Your task to perform on an android device: change the upload size in google photos Image 0: 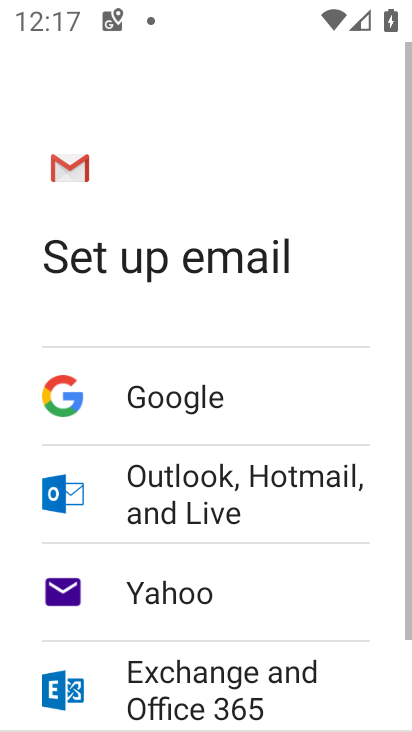
Step 0: press home button
Your task to perform on an android device: change the upload size in google photos Image 1: 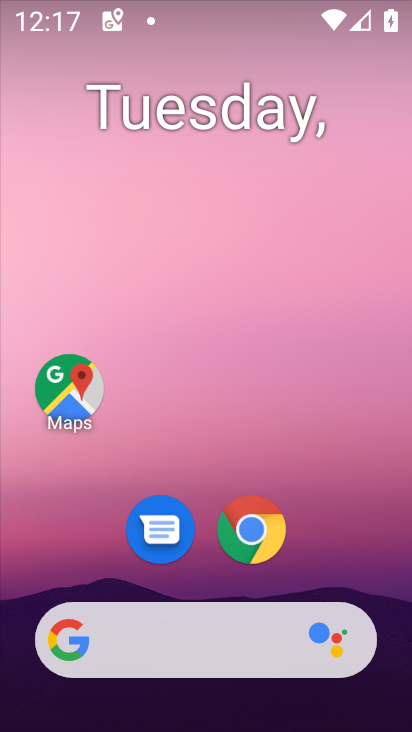
Step 1: drag from (232, 671) to (258, 258)
Your task to perform on an android device: change the upload size in google photos Image 2: 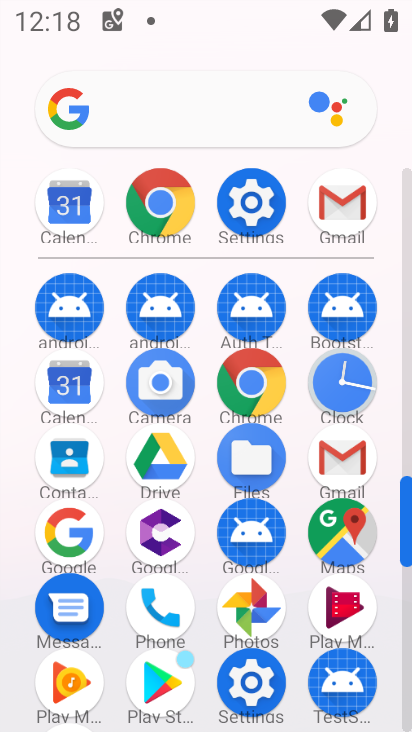
Step 2: click (259, 592)
Your task to perform on an android device: change the upload size in google photos Image 3: 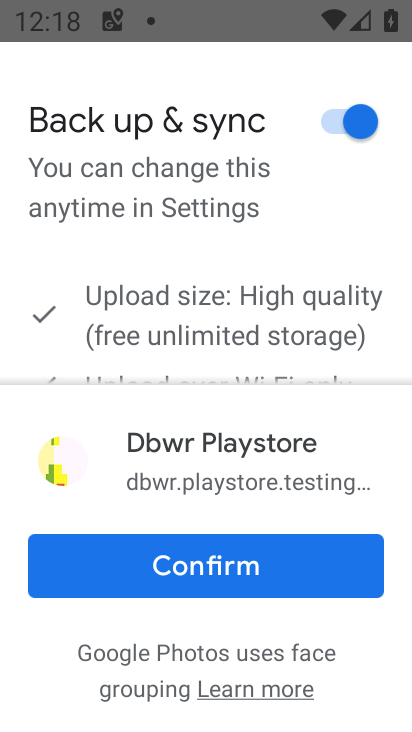
Step 3: click (259, 592)
Your task to perform on an android device: change the upload size in google photos Image 4: 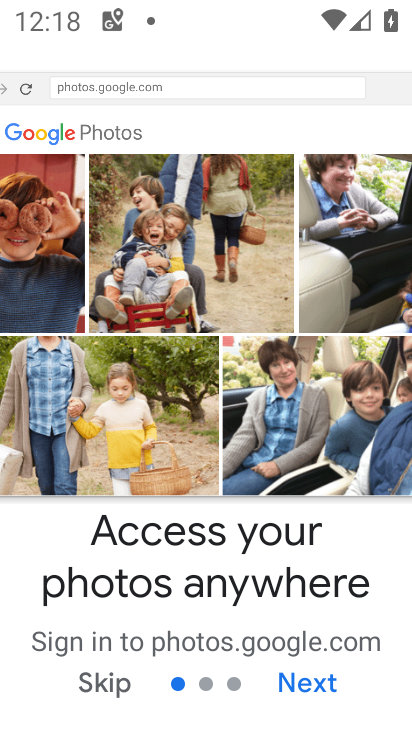
Step 4: click (310, 680)
Your task to perform on an android device: change the upload size in google photos Image 5: 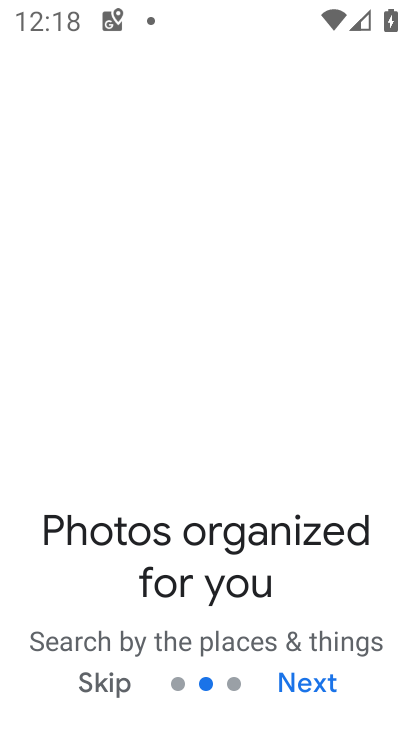
Step 5: click (310, 680)
Your task to perform on an android device: change the upload size in google photos Image 6: 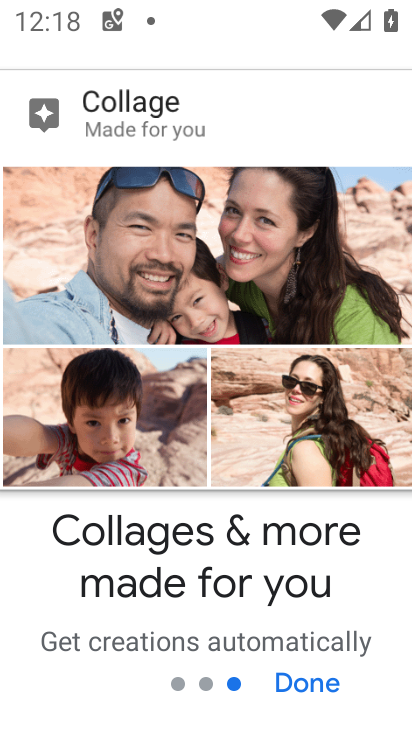
Step 6: click (310, 680)
Your task to perform on an android device: change the upload size in google photos Image 7: 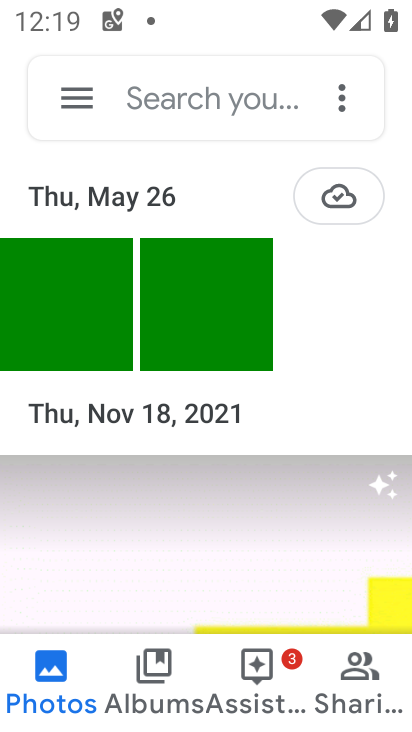
Step 7: click (72, 97)
Your task to perform on an android device: change the upload size in google photos Image 8: 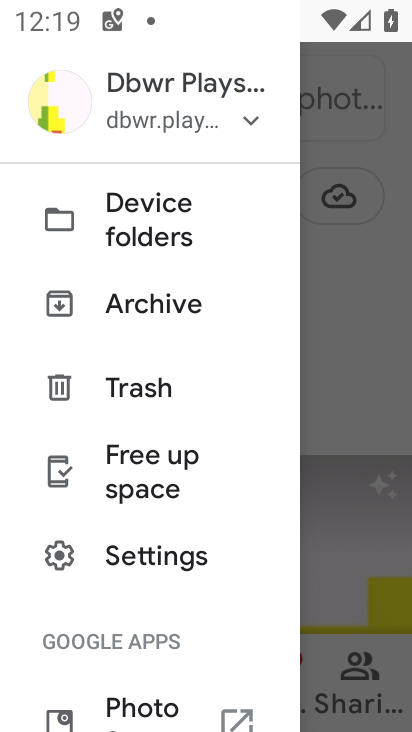
Step 8: drag from (135, 550) to (138, 261)
Your task to perform on an android device: change the upload size in google photos Image 9: 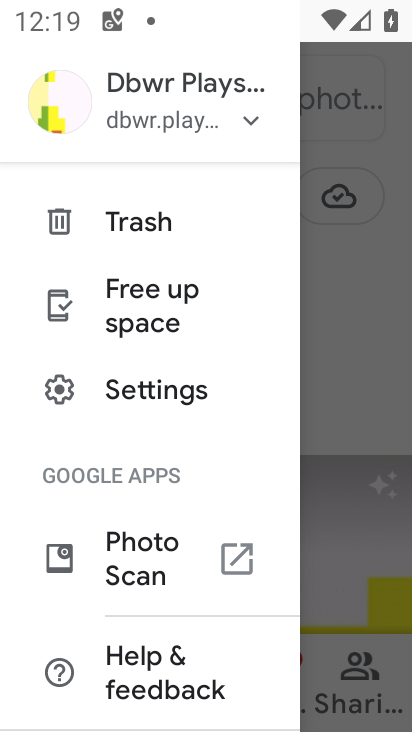
Step 9: click (130, 391)
Your task to perform on an android device: change the upload size in google photos Image 10: 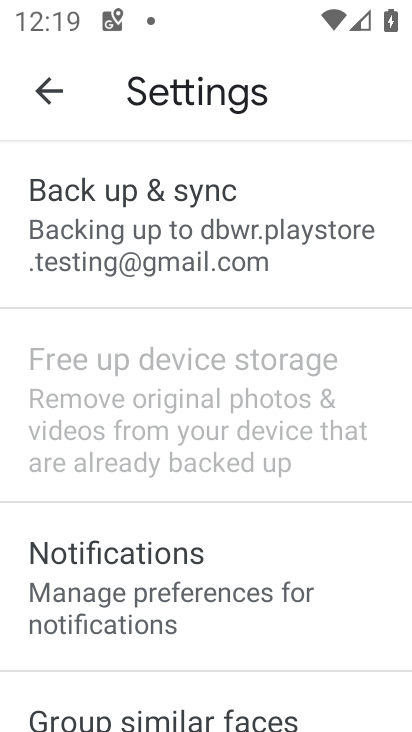
Step 10: click (215, 230)
Your task to perform on an android device: change the upload size in google photos Image 11: 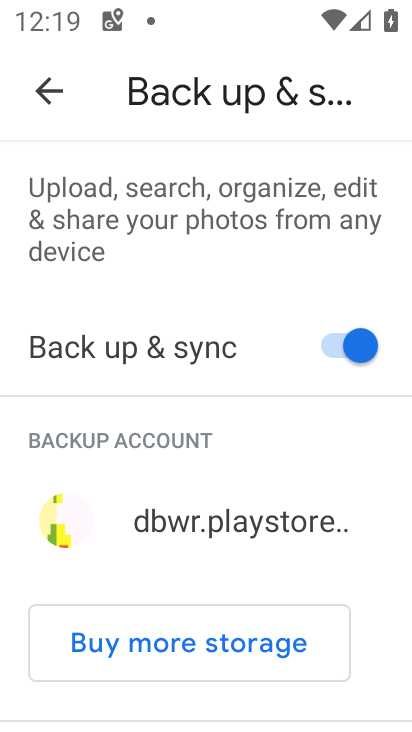
Step 11: drag from (207, 398) to (202, 210)
Your task to perform on an android device: change the upload size in google photos Image 12: 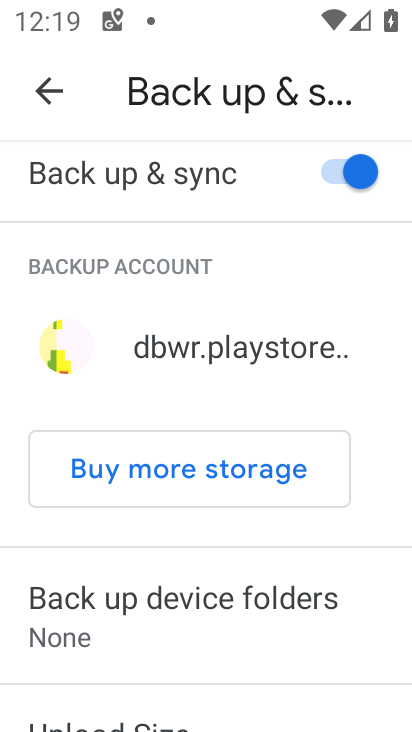
Step 12: drag from (149, 577) to (164, 353)
Your task to perform on an android device: change the upload size in google photos Image 13: 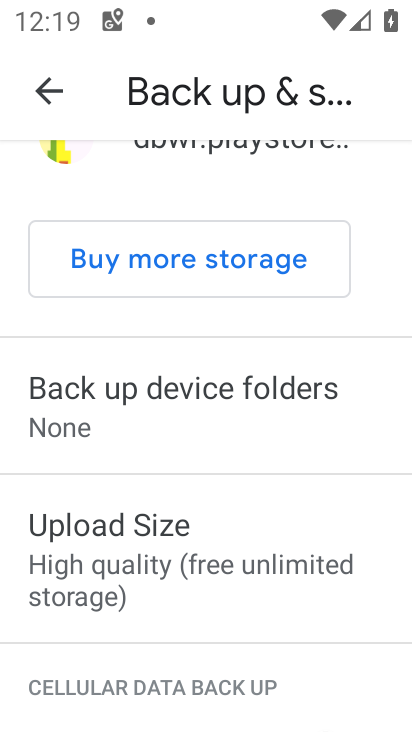
Step 13: click (119, 542)
Your task to perform on an android device: change the upload size in google photos Image 14: 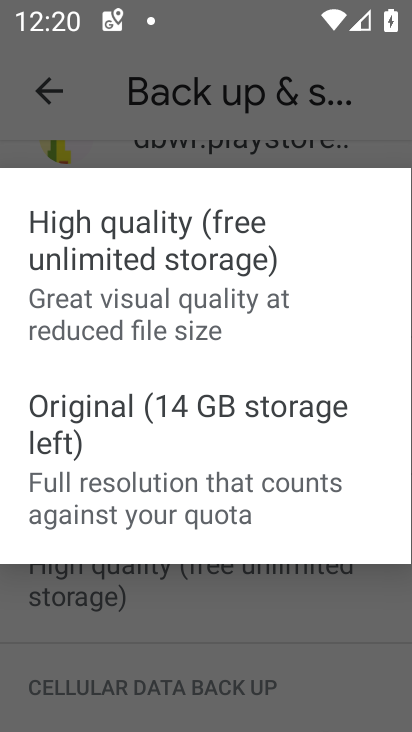
Step 14: task complete